Your task to perform on an android device: check android version Image 0: 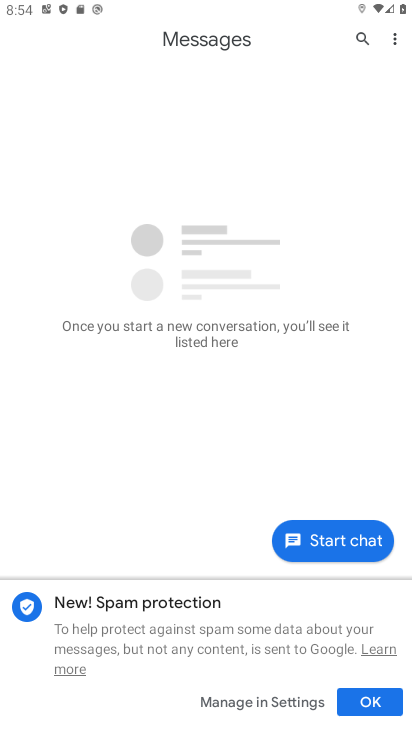
Step 0: press back button
Your task to perform on an android device: check android version Image 1: 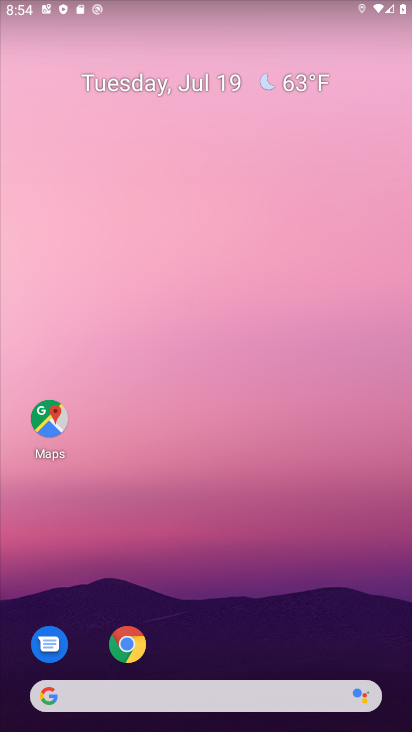
Step 1: drag from (237, 683) to (236, 119)
Your task to perform on an android device: check android version Image 2: 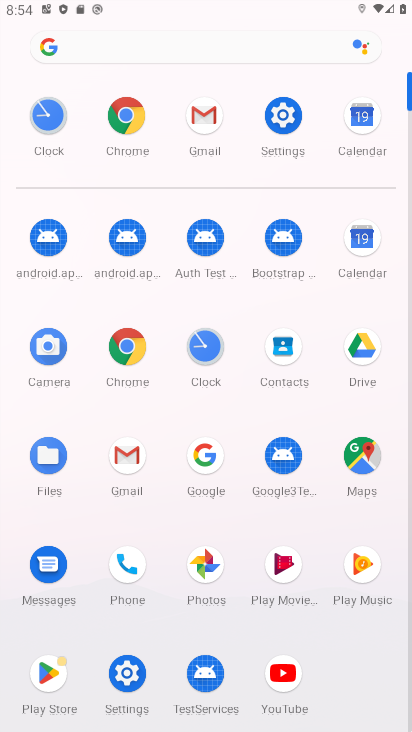
Step 2: click (287, 124)
Your task to perform on an android device: check android version Image 3: 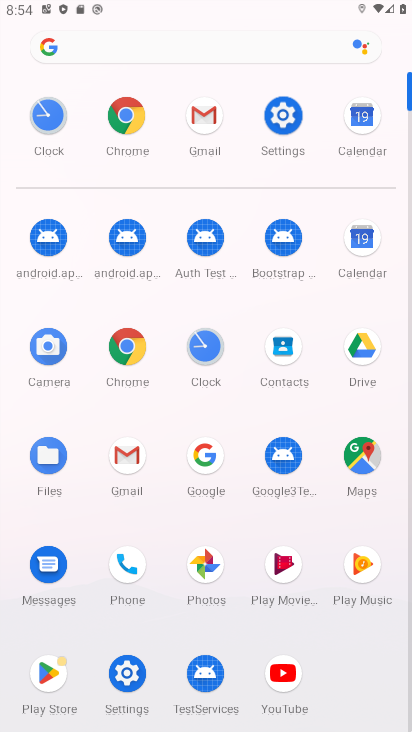
Step 3: click (288, 125)
Your task to perform on an android device: check android version Image 4: 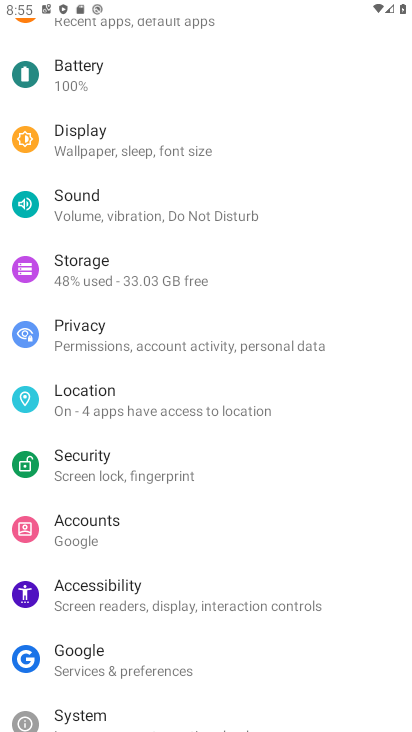
Step 4: click (189, 132)
Your task to perform on an android device: check android version Image 5: 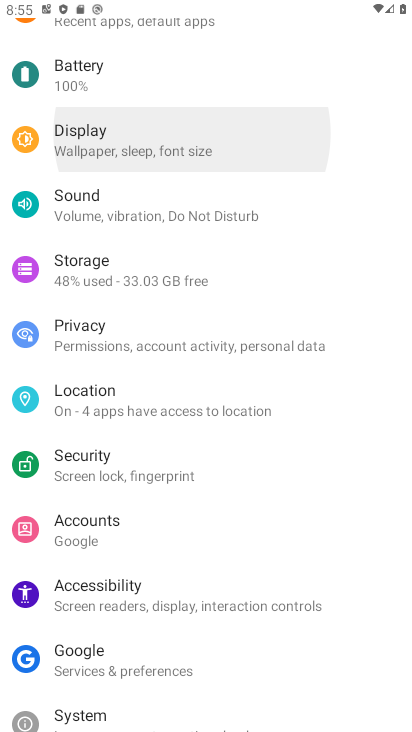
Step 5: drag from (145, 683) to (175, 209)
Your task to perform on an android device: check android version Image 6: 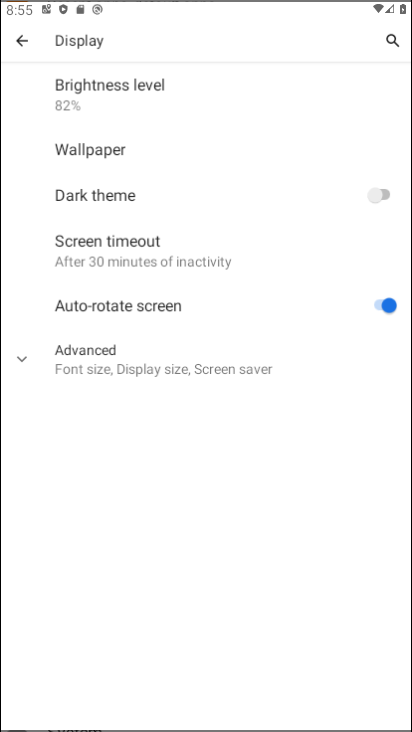
Step 6: drag from (133, 572) to (154, 164)
Your task to perform on an android device: check android version Image 7: 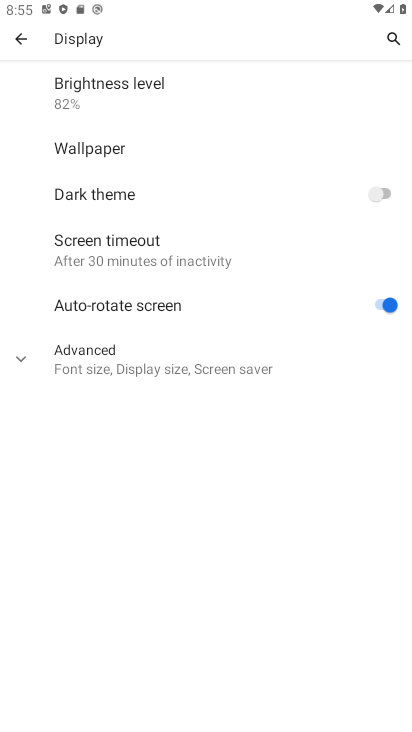
Step 7: click (20, 40)
Your task to perform on an android device: check android version Image 8: 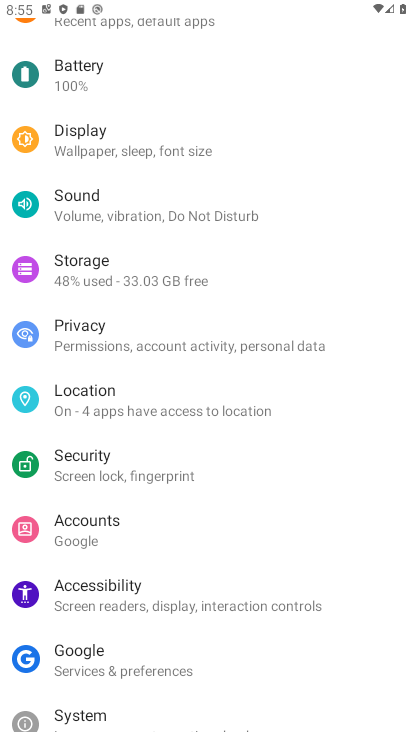
Step 8: drag from (172, 616) to (133, 144)
Your task to perform on an android device: check android version Image 9: 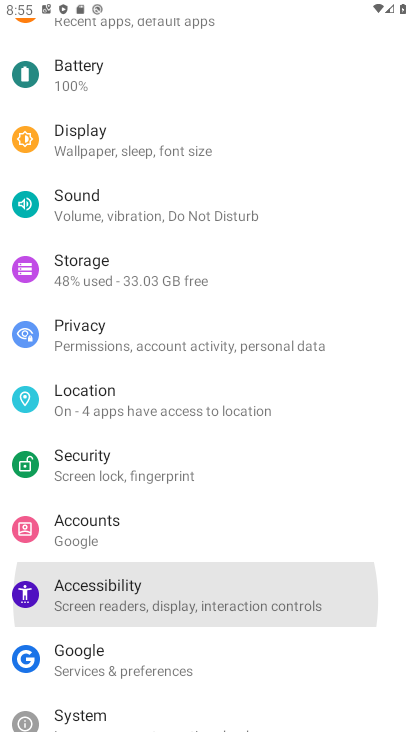
Step 9: drag from (190, 607) to (143, 321)
Your task to perform on an android device: check android version Image 10: 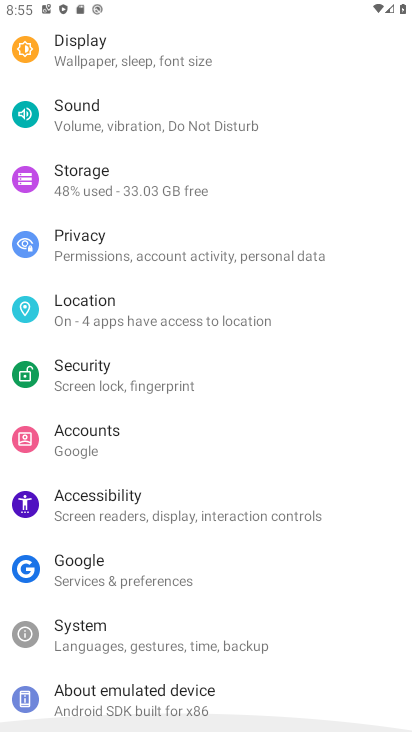
Step 10: drag from (111, 510) to (90, 27)
Your task to perform on an android device: check android version Image 11: 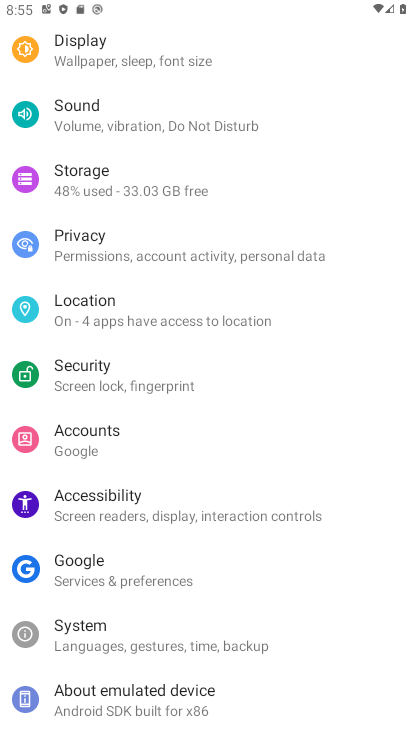
Step 11: click (119, 702)
Your task to perform on an android device: check android version Image 12: 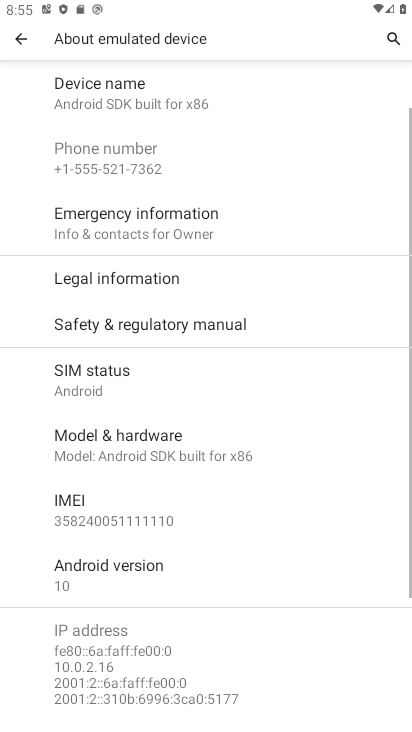
Step 12: drag from (163, 573) to (218, 126)
Your task to perform on an android device: check android version Image 13: 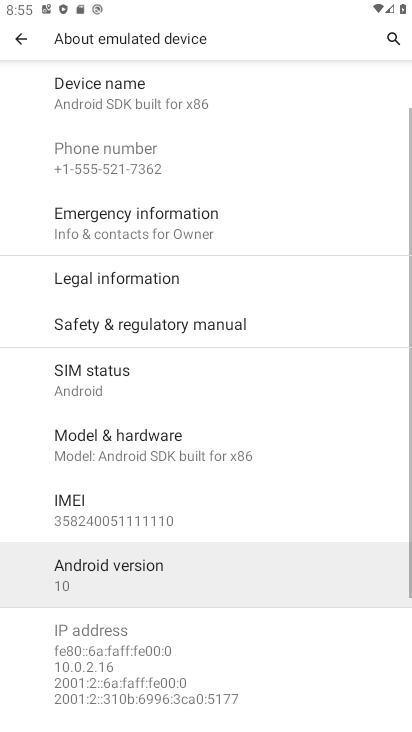
Step 13: drag from (248, 435) to (221, 202)
Your task to perform on an android device: check android version Image 14: 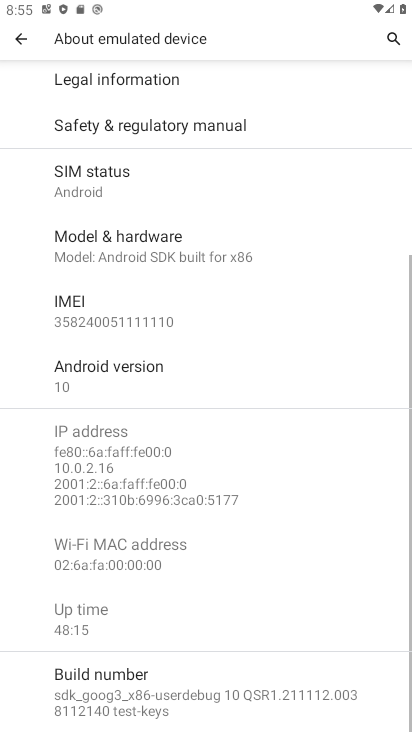
Step 14: click (180, 142)
Your task to perform on an android device: check android version Image 15: 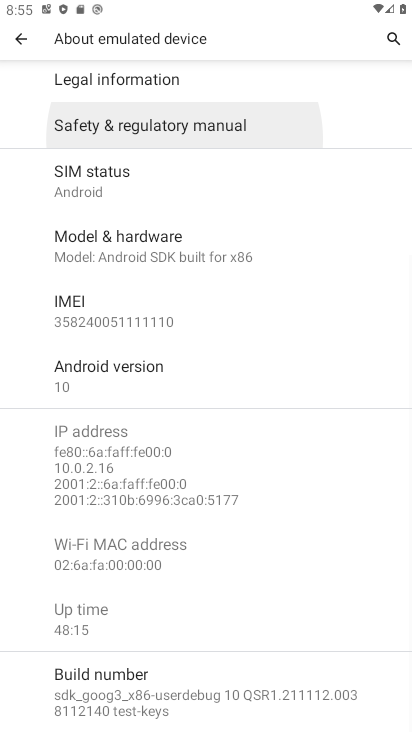
Step 15: task complete